Your task to perform on an android device: Go to Reddit.com Image 0: 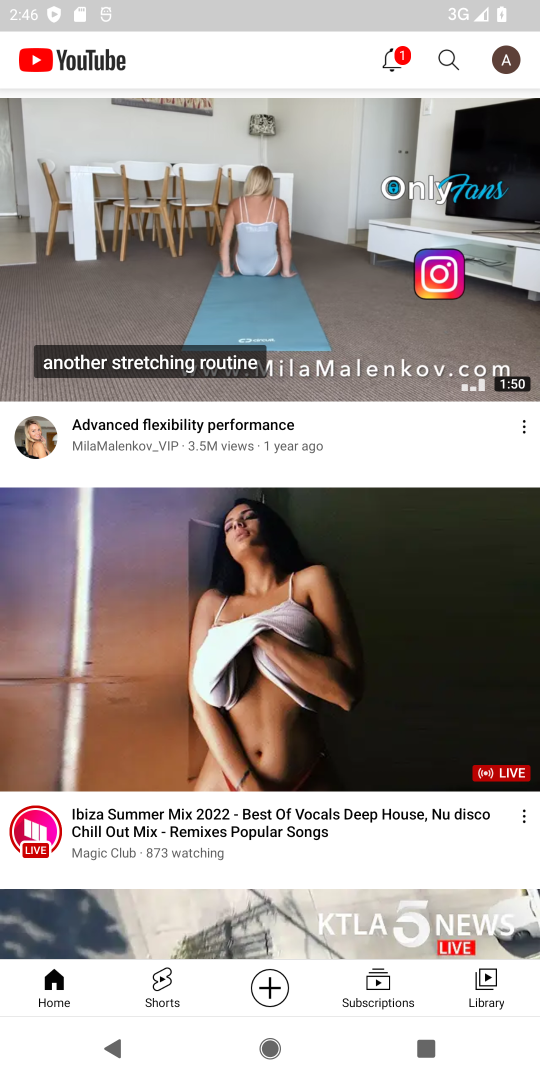
Step 0: press home button
Your task to perform on an android device: Go to Reddit.com Image 1: 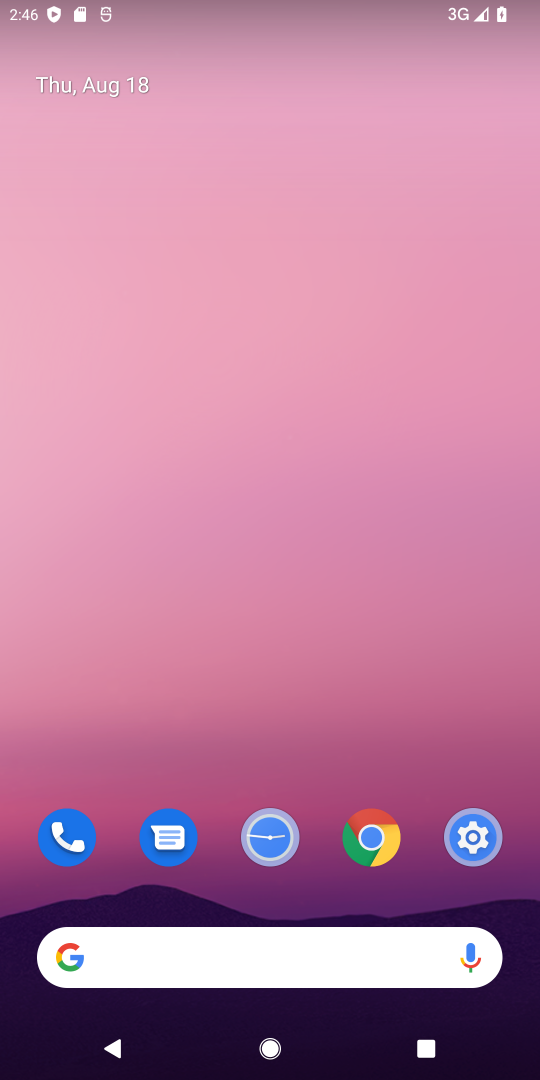
Step 1: drag from (337, 731) to (511, 256)
Your task to perform on an android device: Go to Reddit.com Image 2: 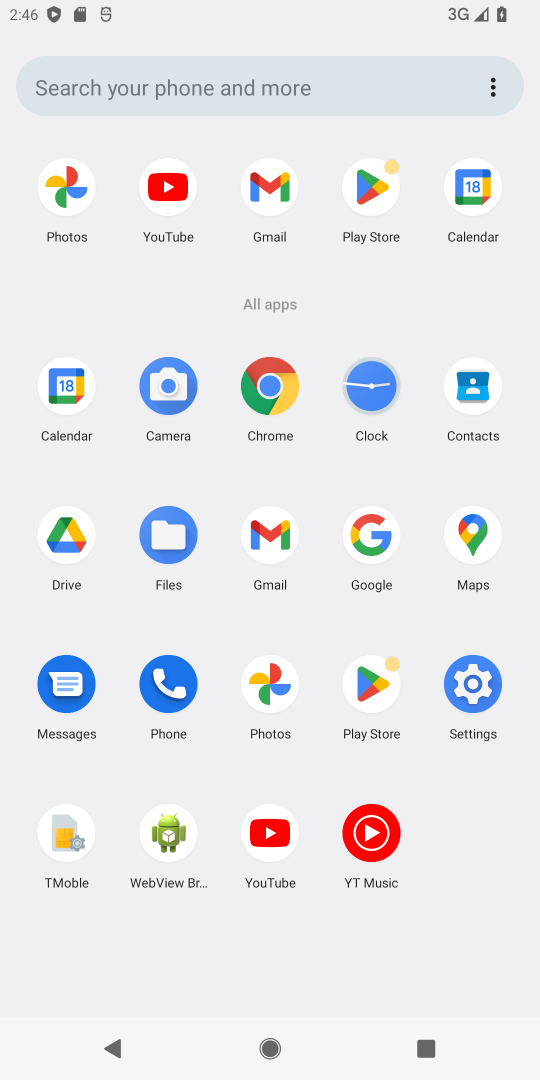
Step 2: click (267, 375)
Your task to perform on an android device: Go to Reddit.com Image 3: 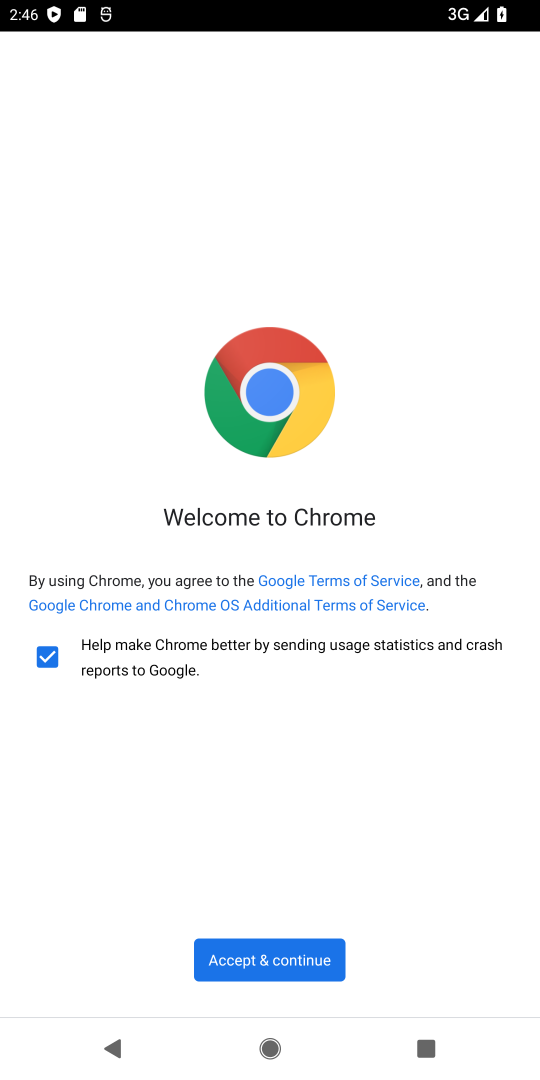
Step 3: click (276, 969)
Your task to perform on an android device: Go to Reddit.com Image 4: 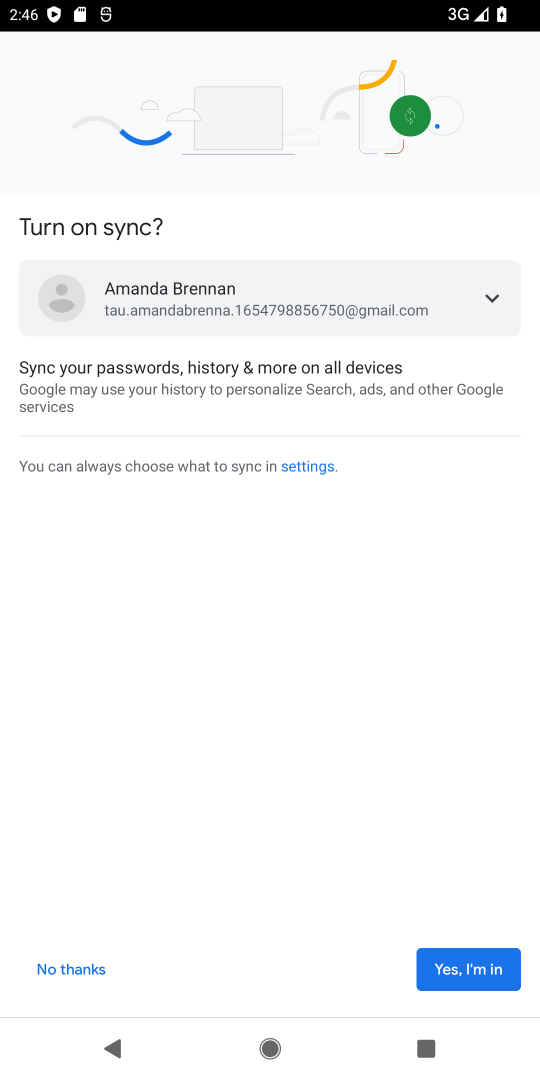
Step 4: click (442, 963)
Your task to perform on an android device: Go to Reddit.com Image 5: 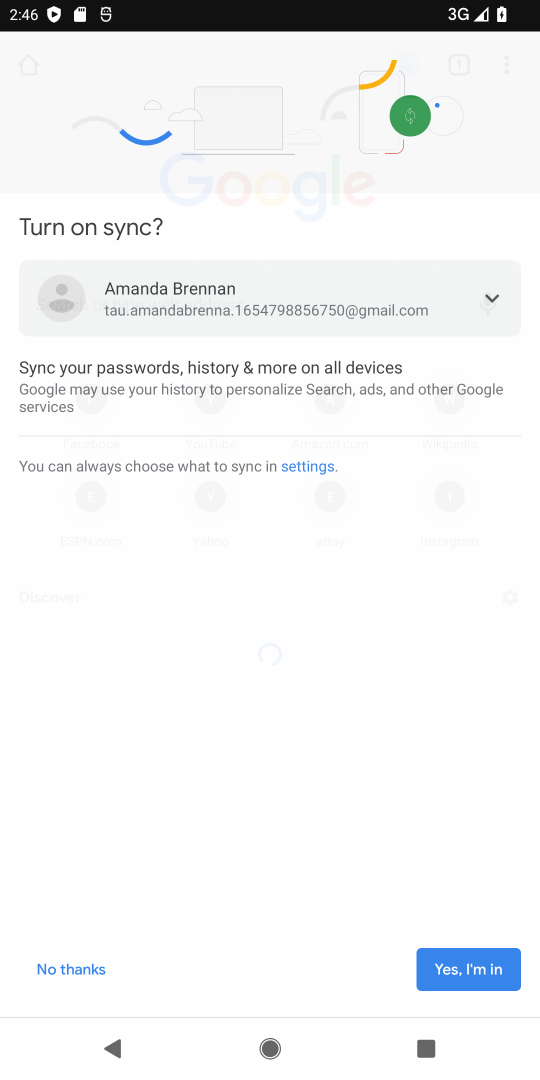
Step 5: click (465, 960)
Your task to perform on an android device: Go to Reddit.com Image 6: 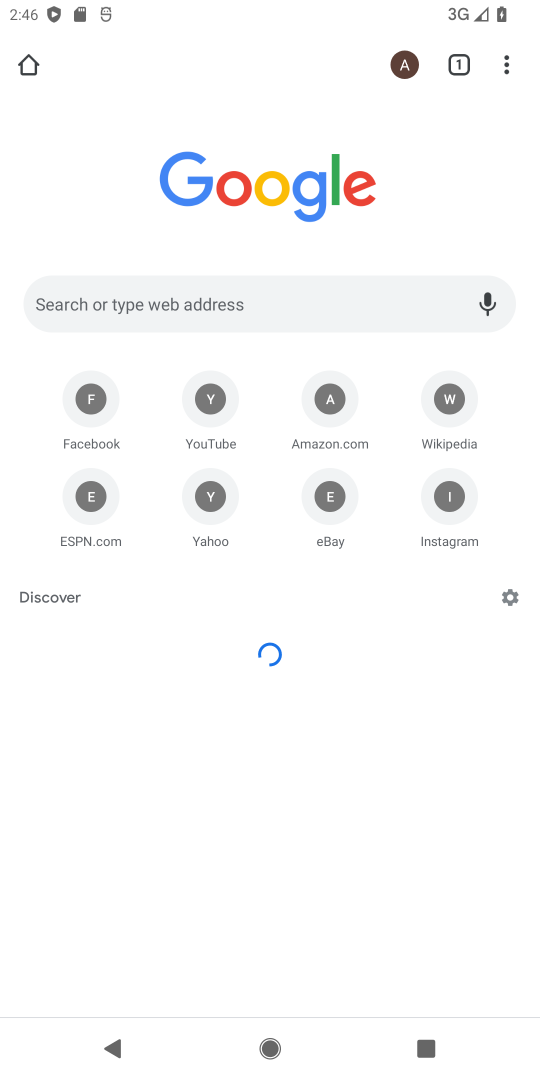
Step 6: click (261, 296)
Your task to perform on an android device: Go to Reddit.com Image 7: 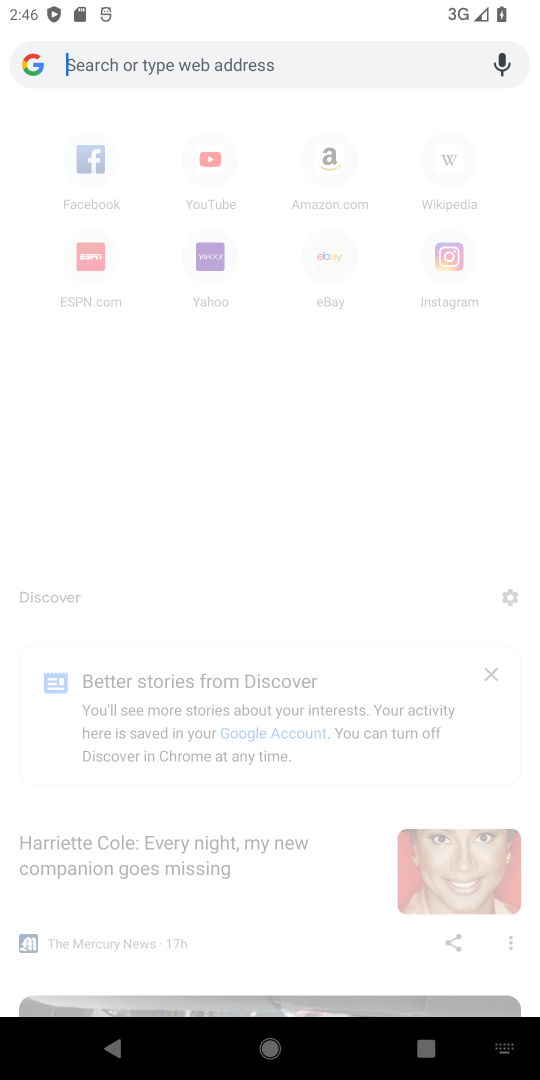
Step 7: type "reddit.com"
Your task to perform on an android device: Go to Reddit.com Image 8: 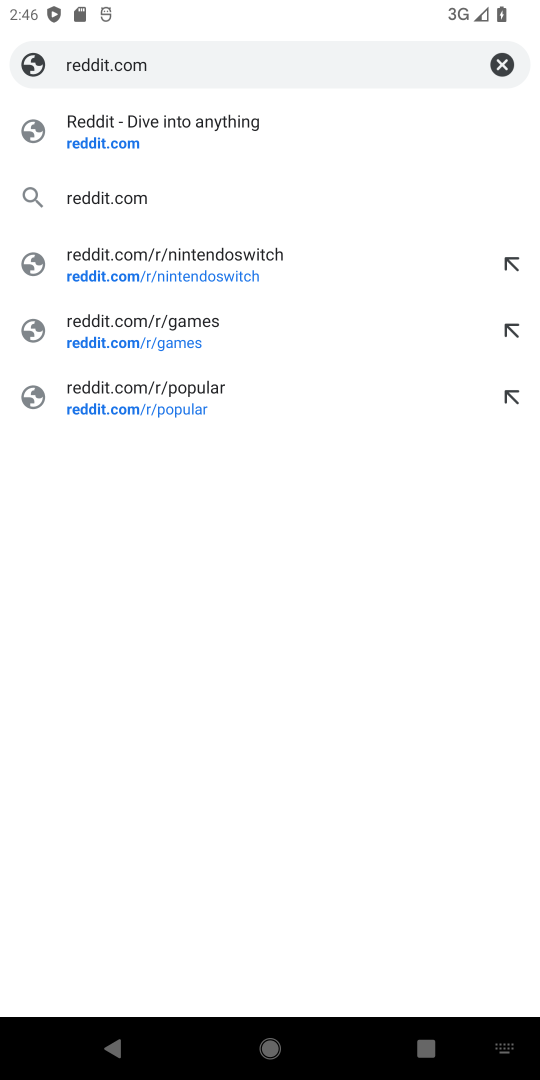
Step 8: click (111, 154)
Your task to perform on an android device: Go to Reddit.com Image 9: 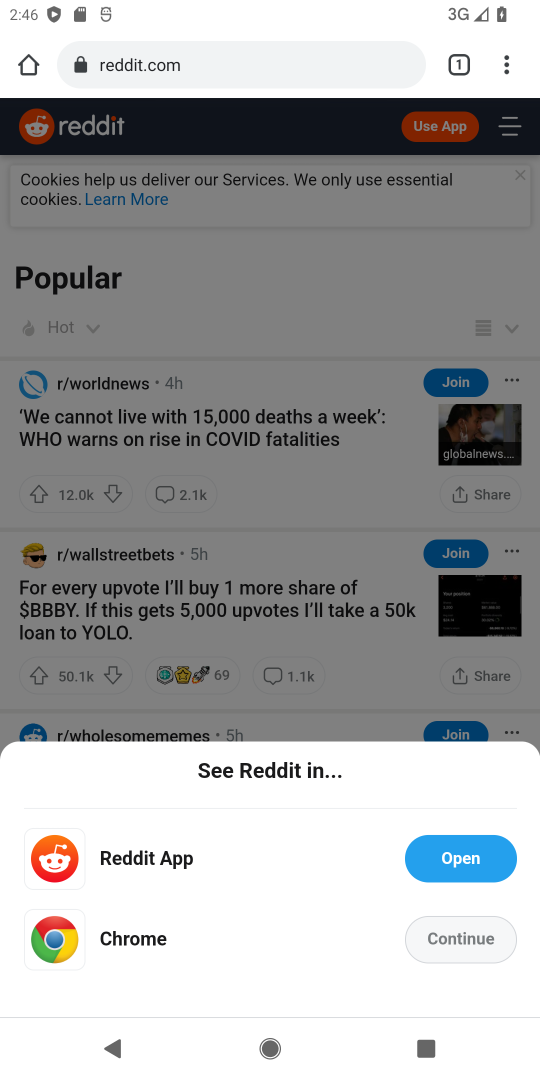
Step 9: task complete